Your task to perform on an android device: Go to Wikipedia Image 0: 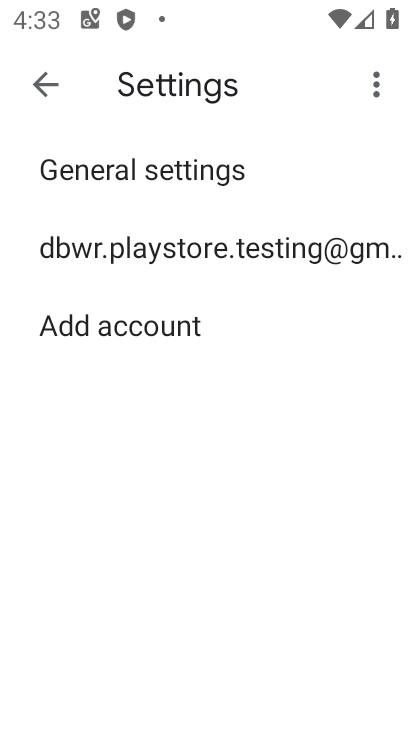
Step 0: press home button
Your task to perform on an android device: Go to Wikipedia Image 1: 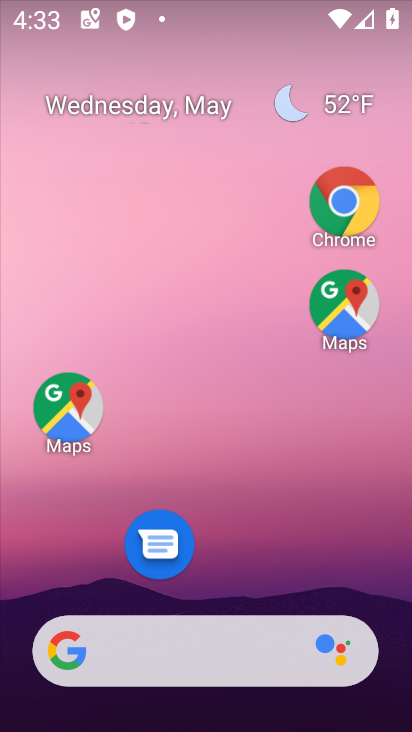
Step 1: click (348, 225)
Your task to perform on an android device: Go to Wikipedia Image 2: 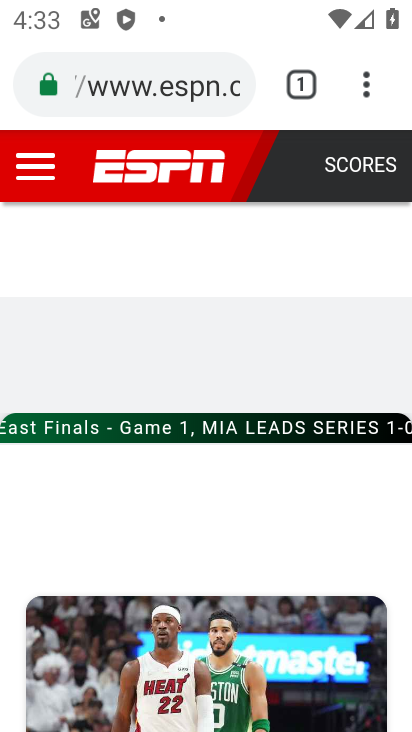
Step 2: press back button
Your task to perform on an android device: Go to Wikipedia Image 3: 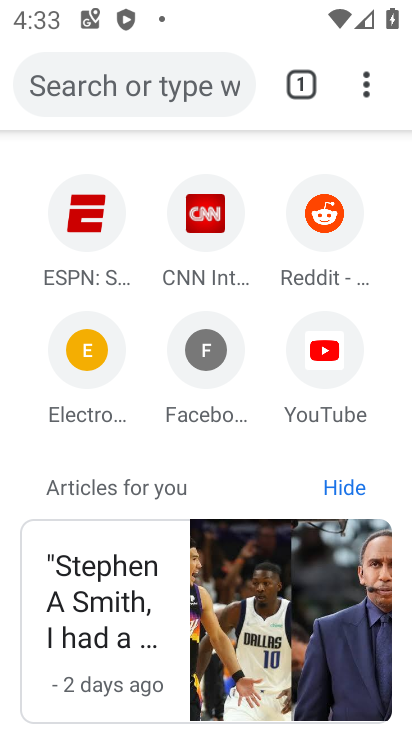
Step 3: drag from (156, 642) to (188, 333)
Your task to perform on an android device: Go to Wikipedia Image 4: 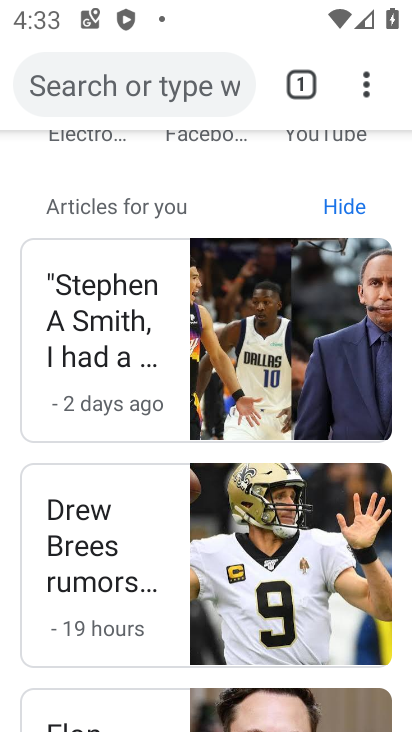
Step 4: click (190, 83)
Your task to perform on an android device: Go to Wikipedia Image 5: 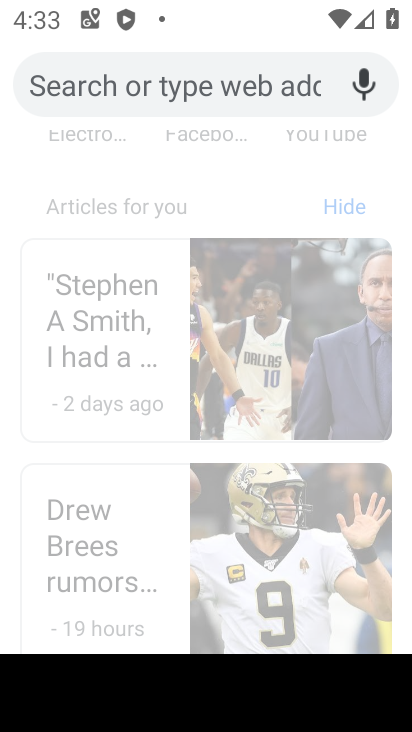
Step 5: type "www.wikipedia.org"
Your task to perform on an android device: Go to Wikipedia Image 6: 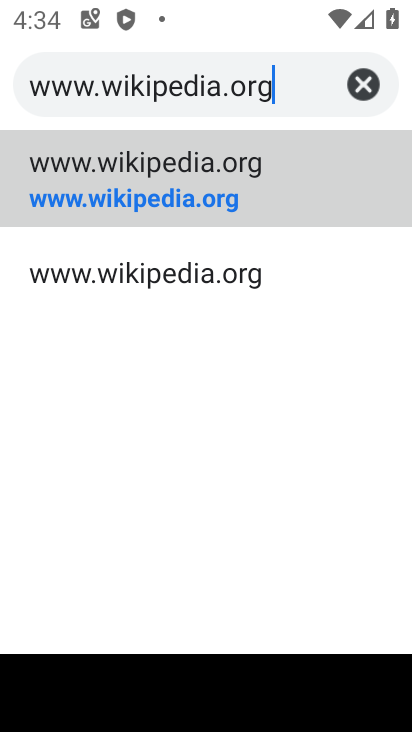
Step 6: click (157, 191)
Your task to perform on an android device: Go to Wikipedia Image 7: 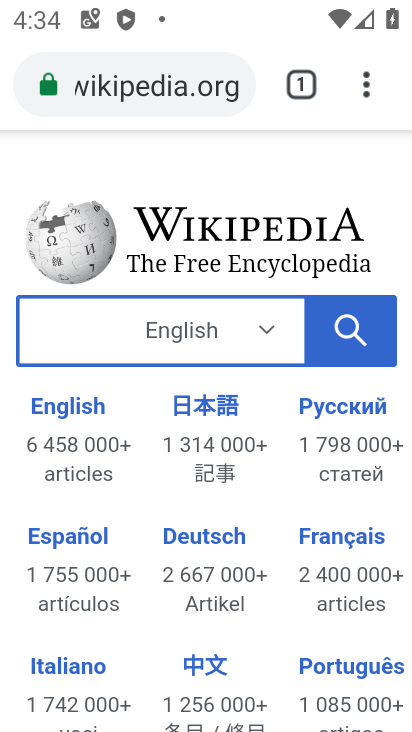
Step 7: task complete